Your task to perform on an android device: See recent photos Image 0: 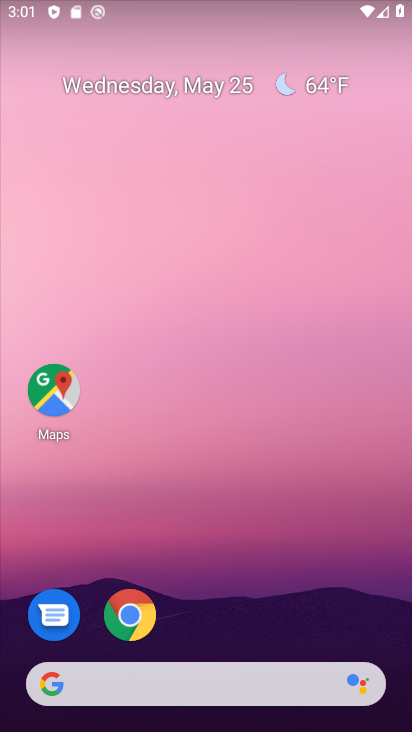
Step 0: drag from (298, 637) to (323, 66)
Your task to perform on an android device: See recent photos Image 1: 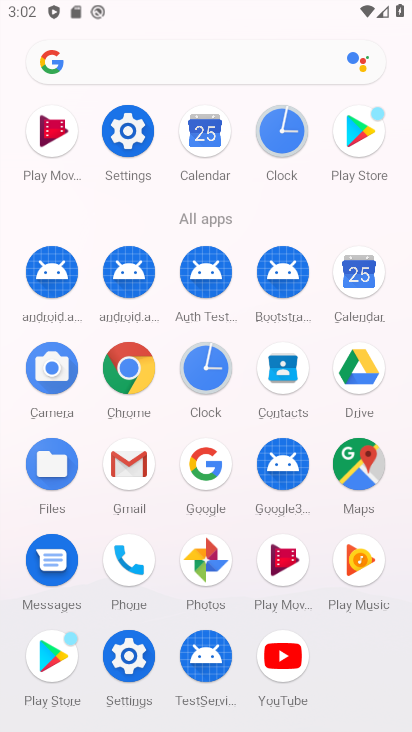
Step 1: click (208, 556)
Your task to perform on an android device: See recent photos Image 2: 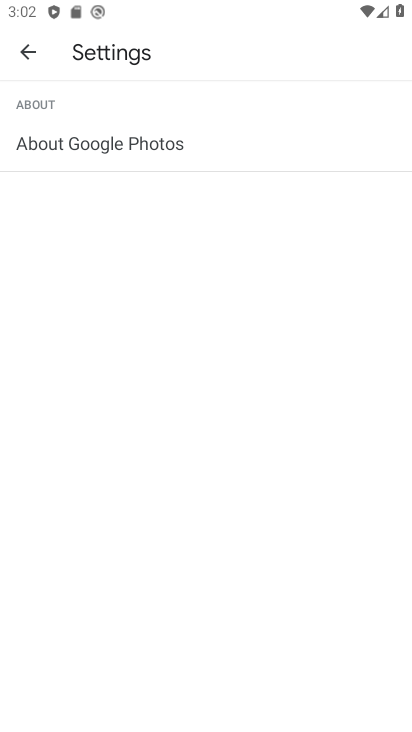
Step 2: click (24, 60)
Your task to perform on an android device: See recent photos Image 3: 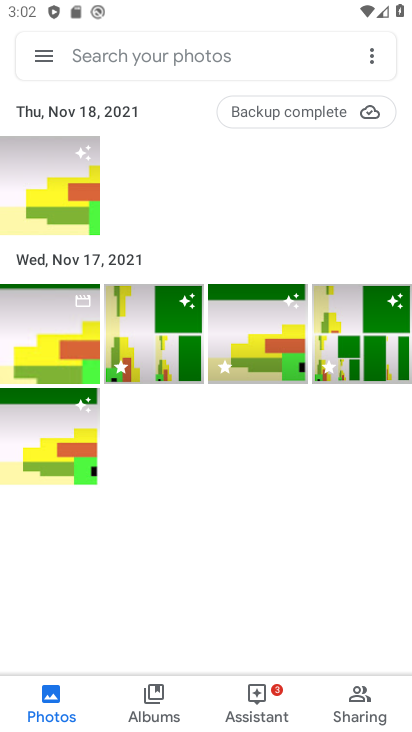
Step 3: task complete